Your task to perform on an android device: Play the last video I watched on Youtube Image 0: 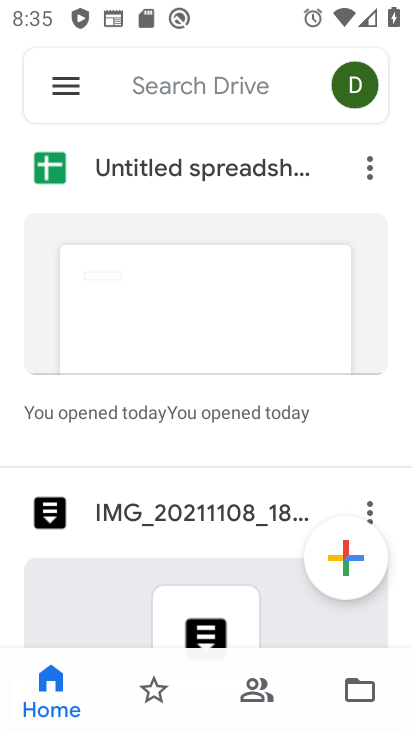
Step 0: press home button
Your task to perform on an android device: Play the last video I watched on Youtube Image 1: 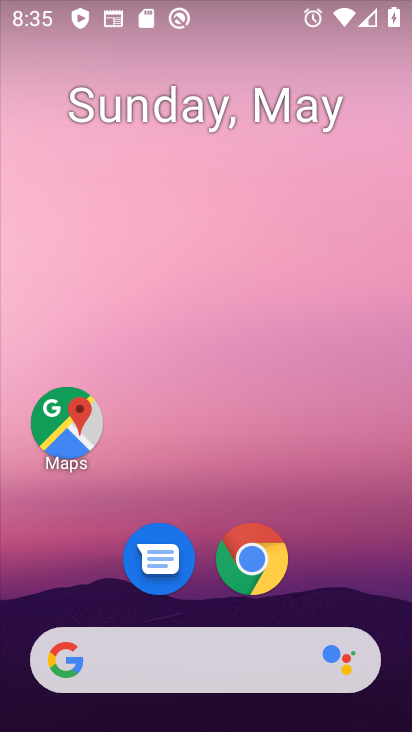
Step 1: drag from (45, 565) to (202, 322)
Your task to perform on an android device: Play the last video I watched on Youtube Image 2: 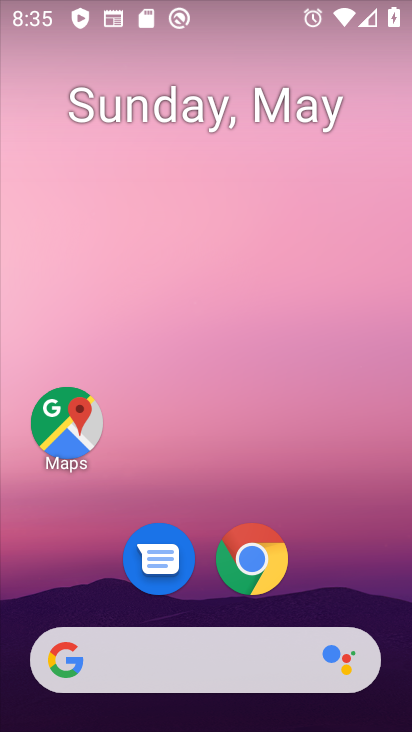
Step 2: drag from (23, 631) to (342, 153)
Your task to perform on an android device: Play the last video I watched on Youtube Image 3: 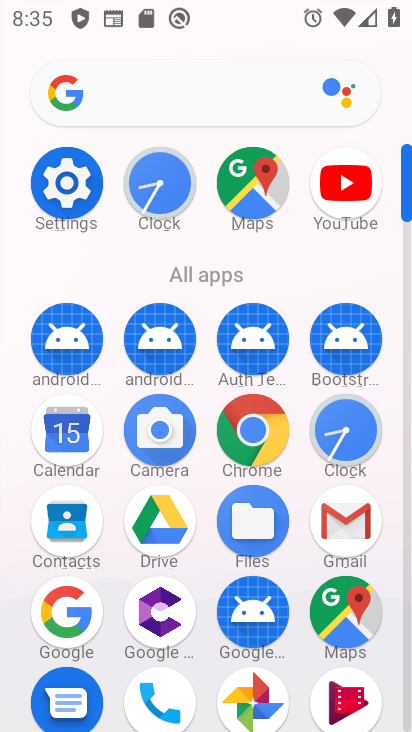
Step 3: click (339, 164)
Your task to perform on an android device: Play the last video I watched on Youtube Image 4: 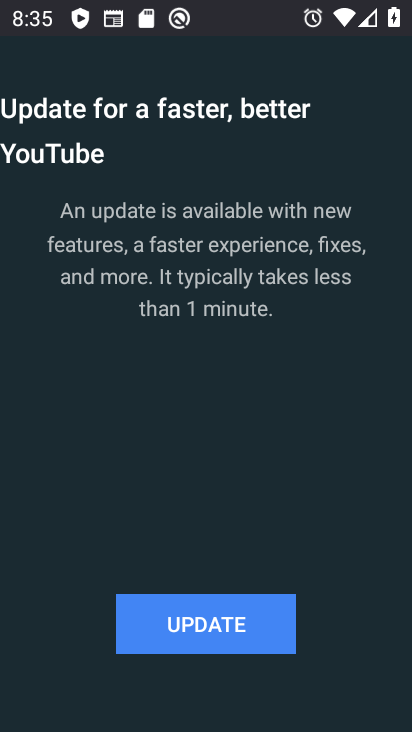
Step 4: task complete